Your task to perform on an android device: Search for seafood restaurants on Google Maps Image 0: 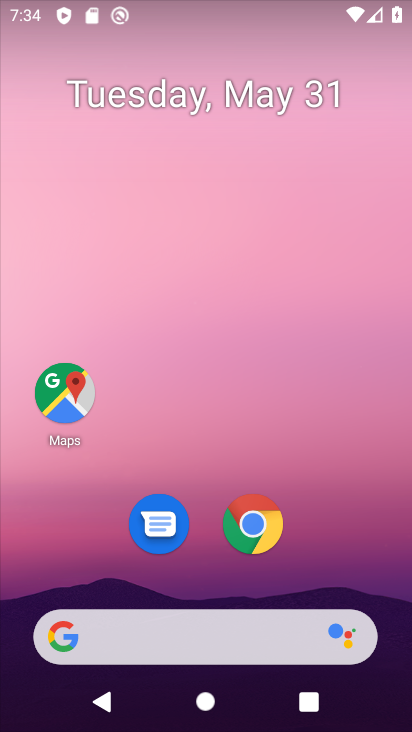
Step 0: click (64, 382)
Your task to perform on an android device: Search for seafood restaurants on Google Maps Image 1: 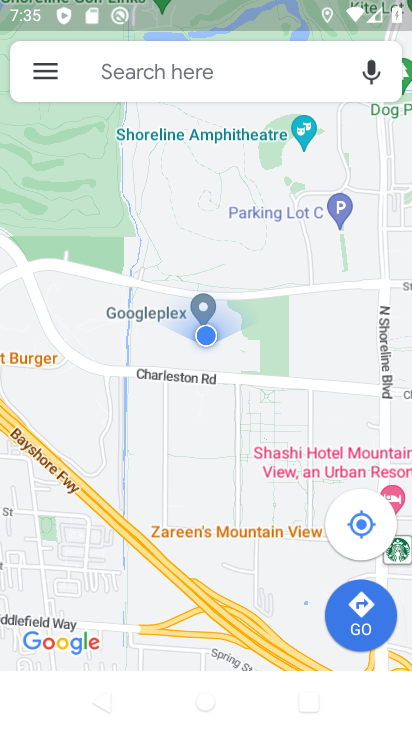
Step 1: click (251, 67)
Your task to perform on an android device: Search for seafood restaurants on Google Maps Image 2: 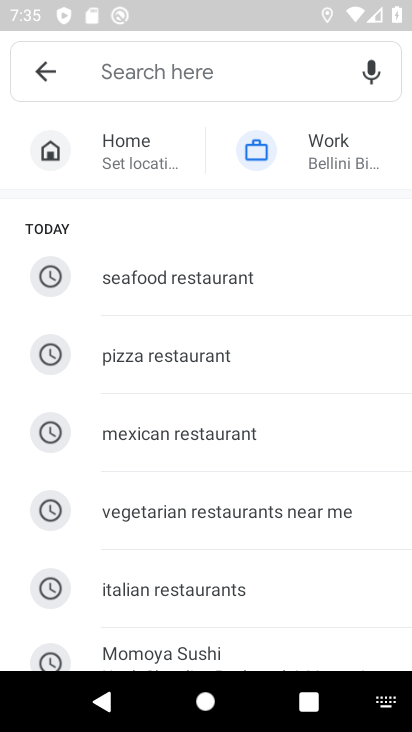
Step 2: click (204, 277)
Your task to perform on an android device: Search for seafood restaurants on Google Maps Image 3: 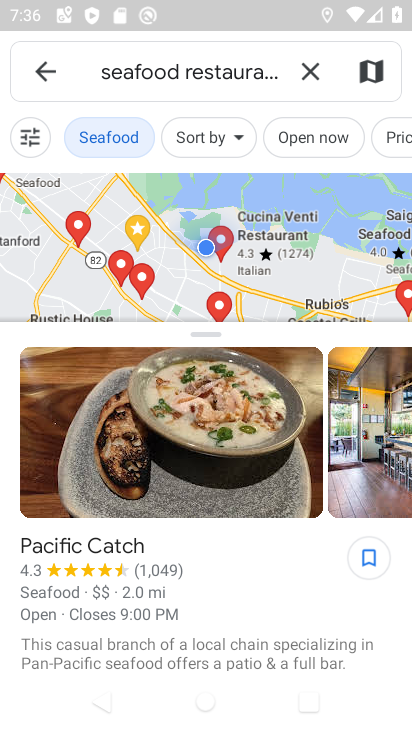
Step 3: task complete